Your task to perform on an android device: Open the calendar and show me this week's events? Image 0: 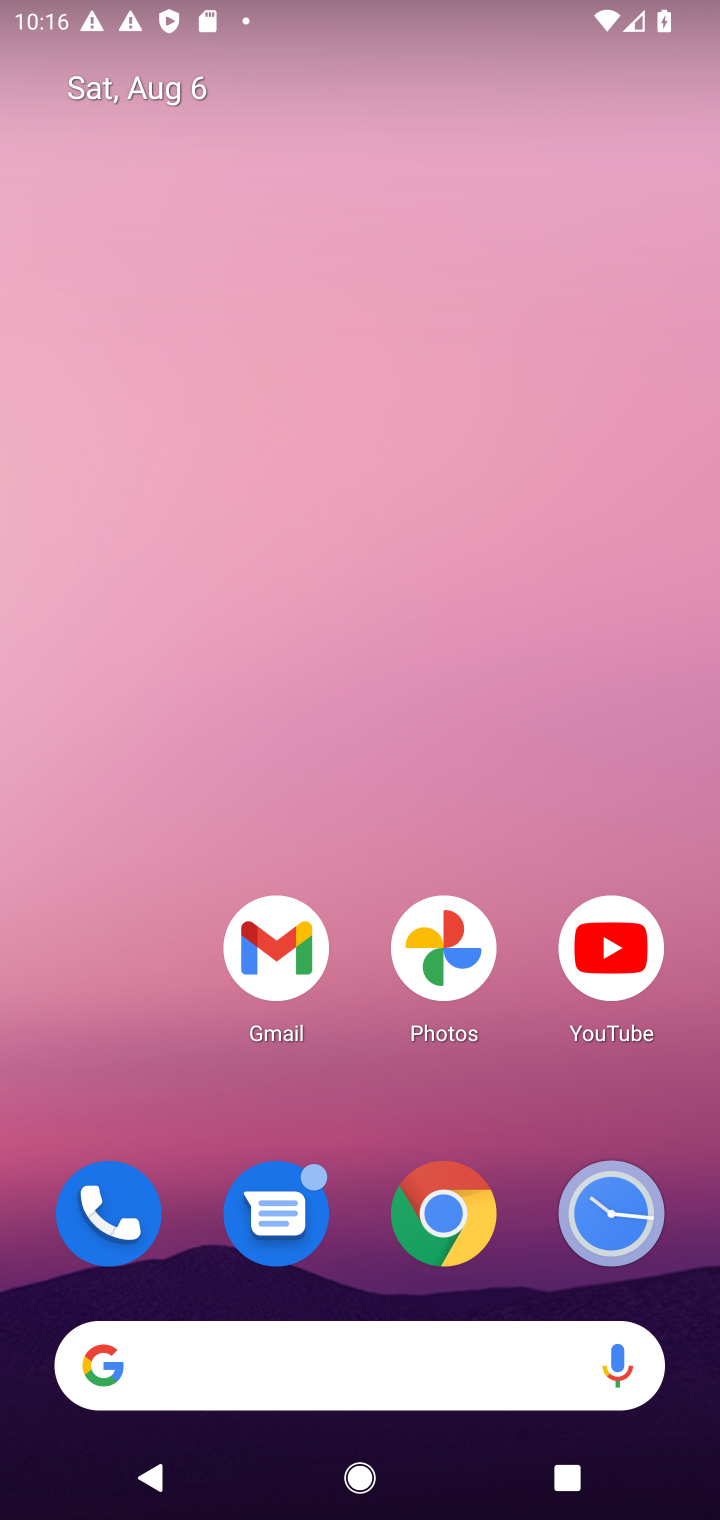
Step 0: press home button
Your task to perform on an android device: Open the calendar and show me this week's events? Image 1: 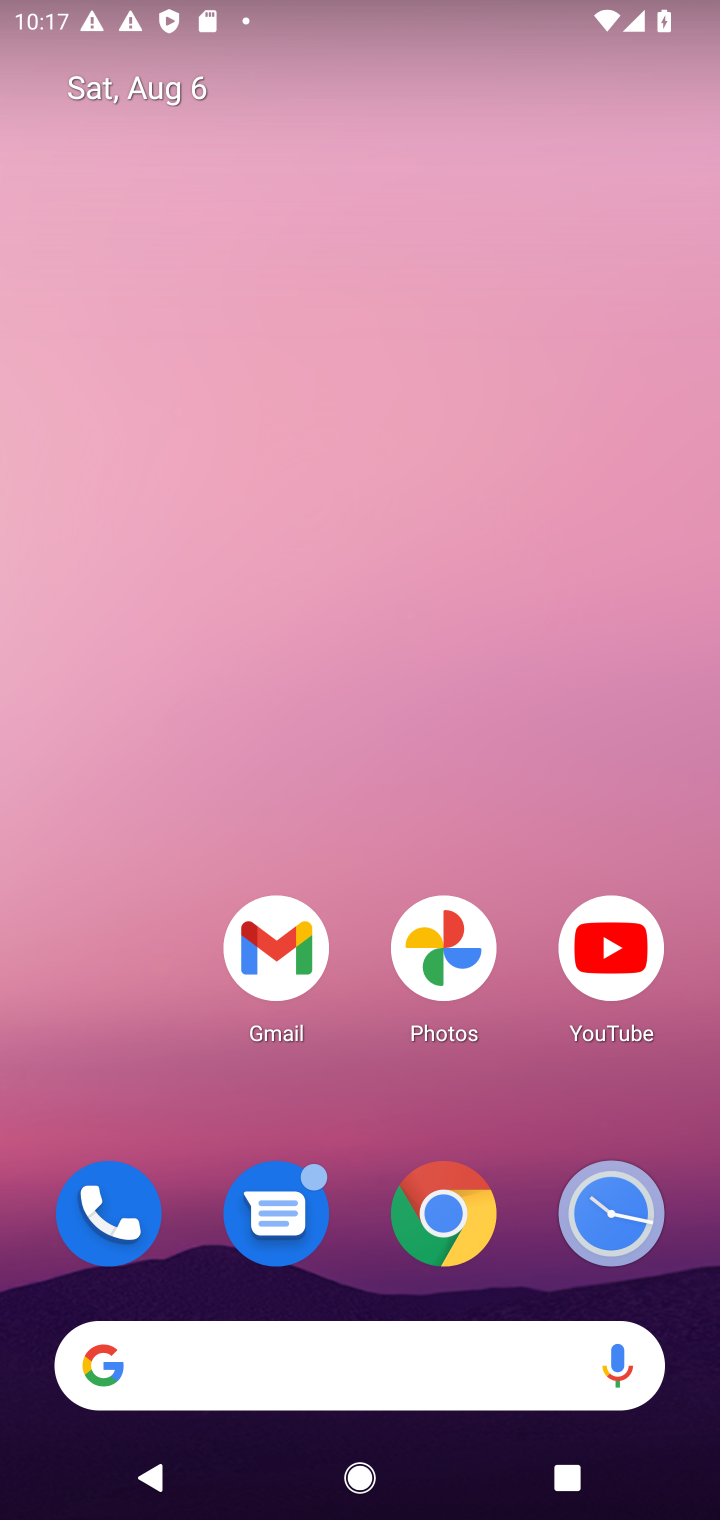
Step 1: task complete